Your task to perform on an android device: turn on notifications settings in the gmail app Image 0: 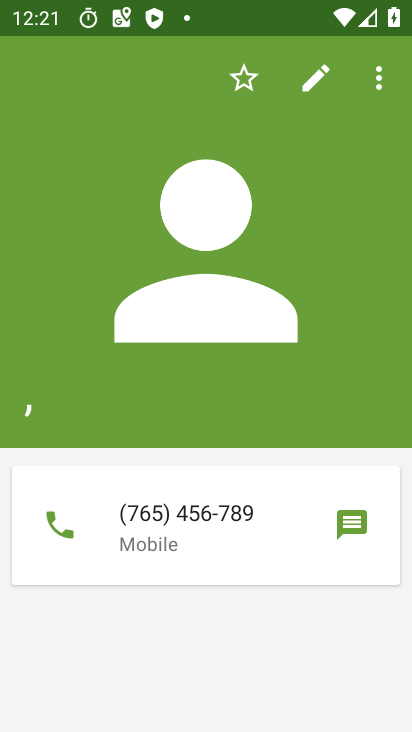
Step 0: press home button
Your task to perform on an android device: turn on notifications settings in the gmail app Image 1: 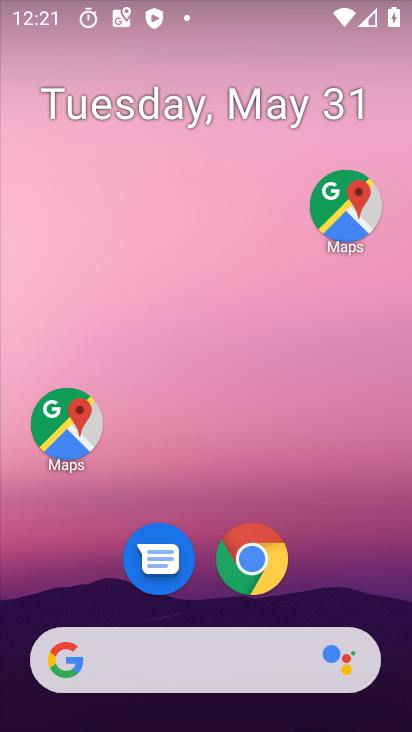
Step 1: drag from (342, 525) to (257, 37)
Your task to perform on an android device: turn on notifications settings in the gmail app Image 2: 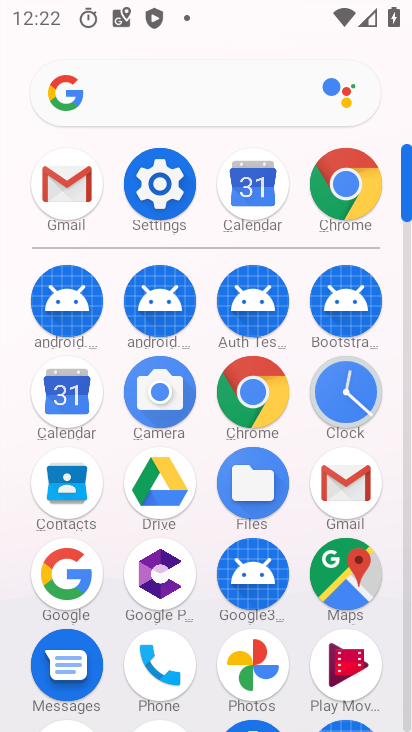
Step 2: click (69, 194)
Your task to perform on an android device: turn on notifications settings in the gmail app Image 3: 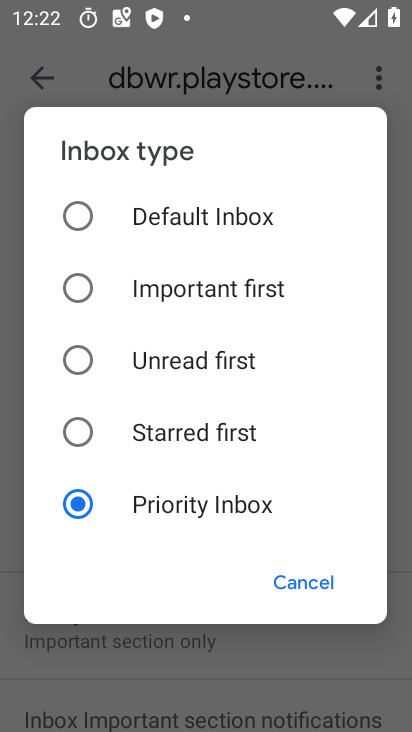
Step 3: click (307, 582)
Your task to perform on an android device: turn on notifications settings in the gmail app Image 4: 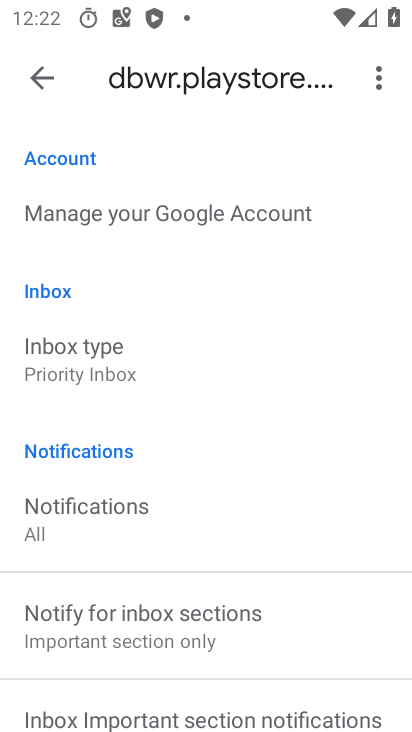
Step 4: drag from (113, 571) to (191, 220)
Your task to perform on an android device: turn on notifications settings in the gmail app Image 5: 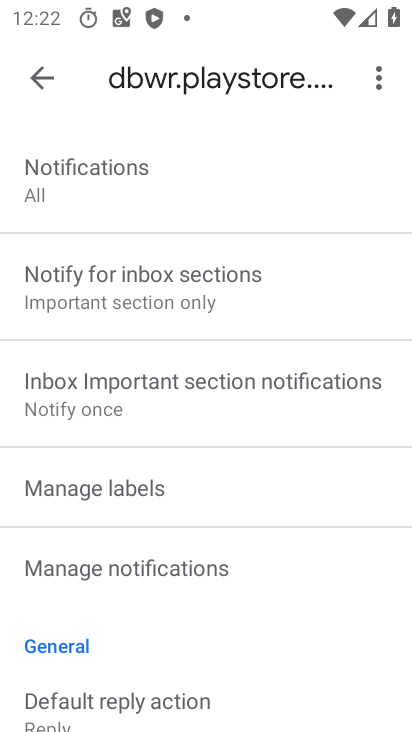
Step 5: click (148, 571)
Your task to perform on an android device: turn on notifications settings in the gmail app Image 6: 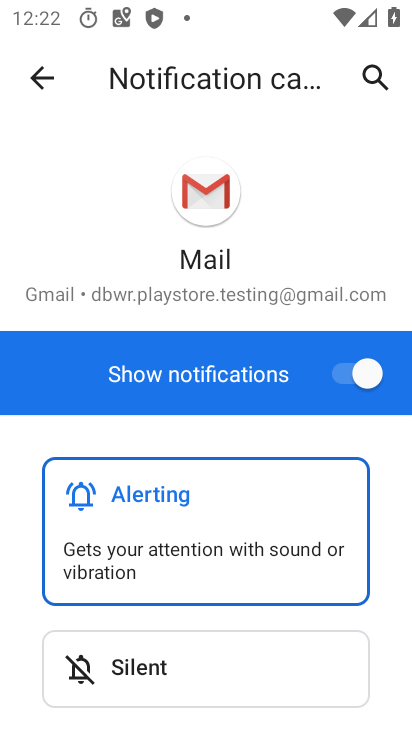
Step 6: task complete